Your task to perform on an android device: remove spam from my inbox in the gmail app Image 0: 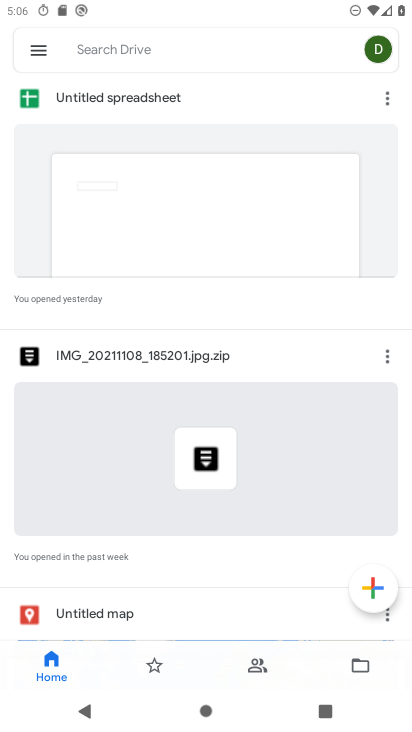
Step 0: press home button
Your task to perform on an android device: remove spam from my inbox in the gmail app Image 1: 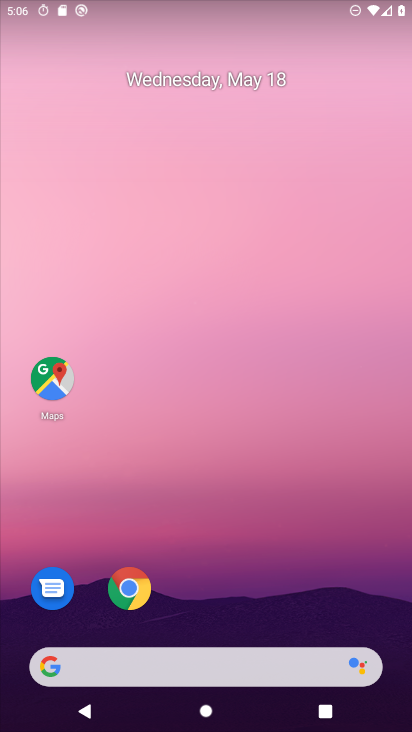
Step 1: drag from (202, 586) to (238, 62)
Your task to perform on an android device: remove spam from my inbox in the gmail app Image 2: 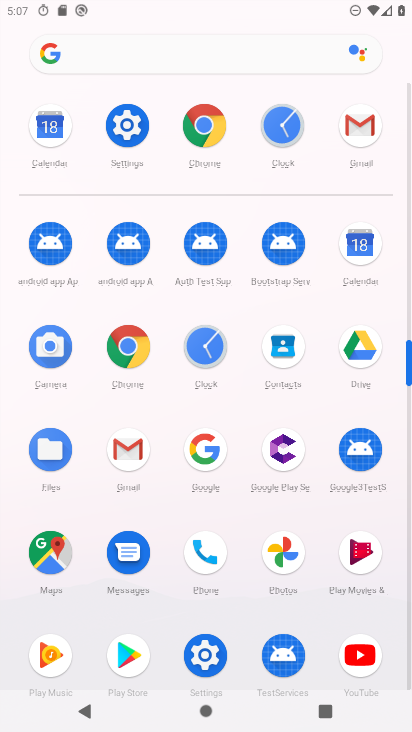
Step 2: click (352, 129)
Your task to perform on an android device: remove spam from my inbox in the gmail app Image 3: 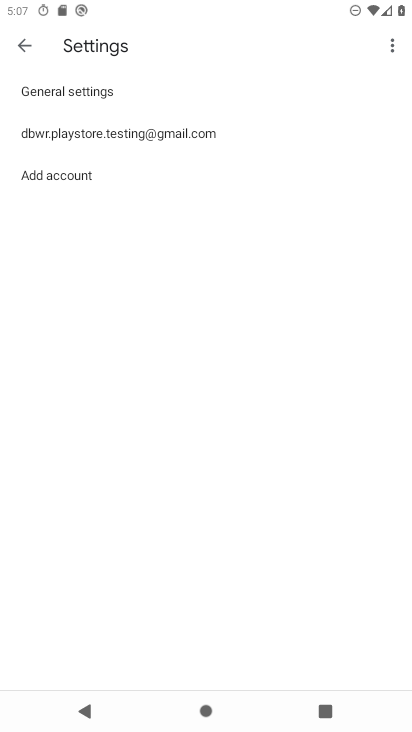
Step 3: click (21, 48)
Your task to perform on an android device: remove spam from my inbox in the gmail app Image 4: 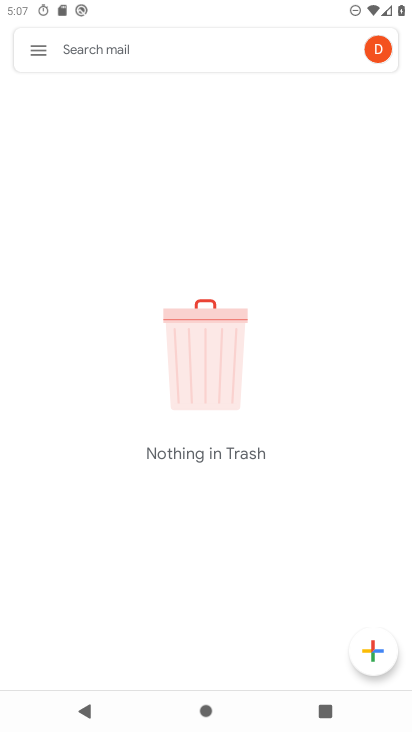
Step 4: click (37, 48)
Your task to perform on an android device: remove spam from my inbox in the gmail app Image 5: 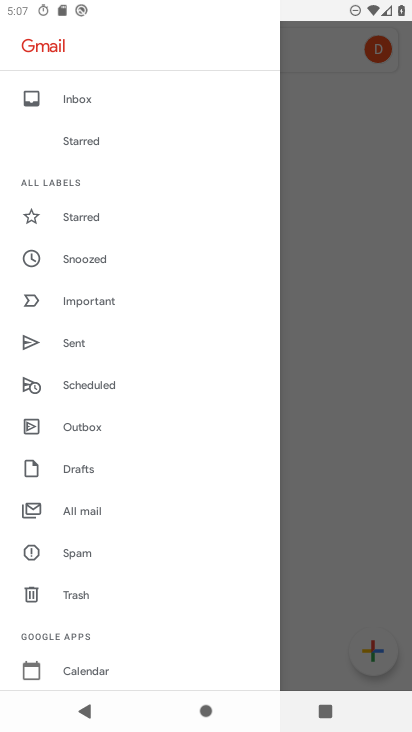
Step 5: click (70, 548)
Your task to perform on an android device: remove spam from my inbox in the gmail app Image 6: 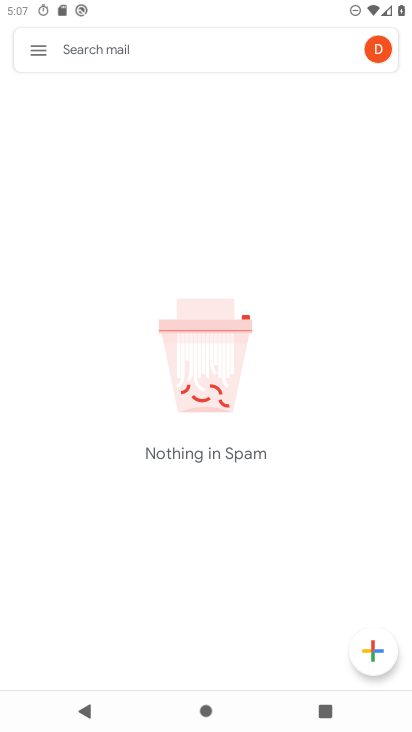
Step 6: task complete